Your task to perform on an android device: change the upload size in google photos Image 0: 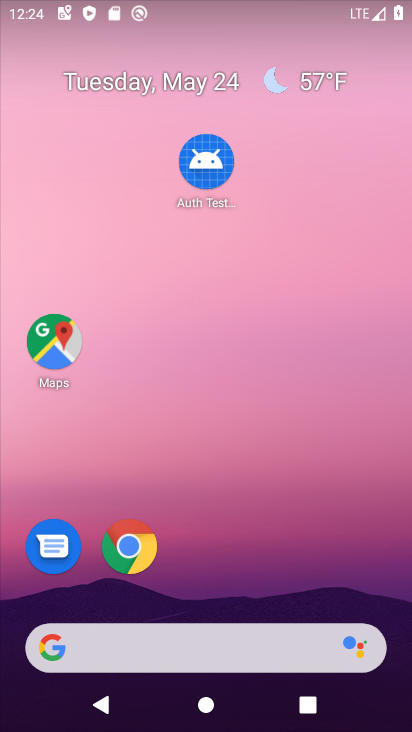
Step 0: drag from (216, 602) to (238, 128)
Your task to perform on an android device: change the upload size in google photos Image 1: 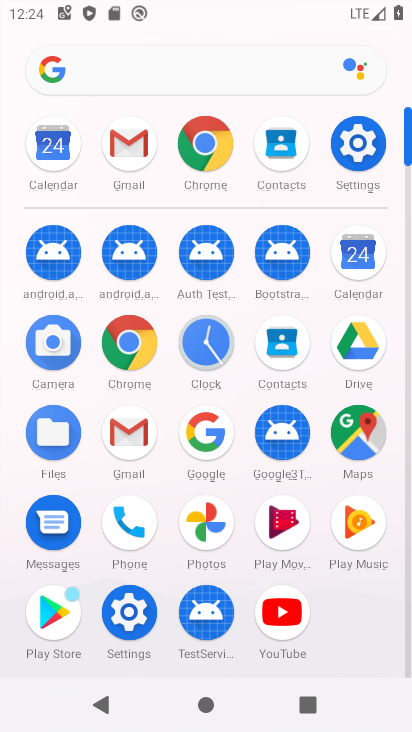
Step 1: click (218, 518)
Your task to perform on an android device: change the upload size in google photos Image 2: 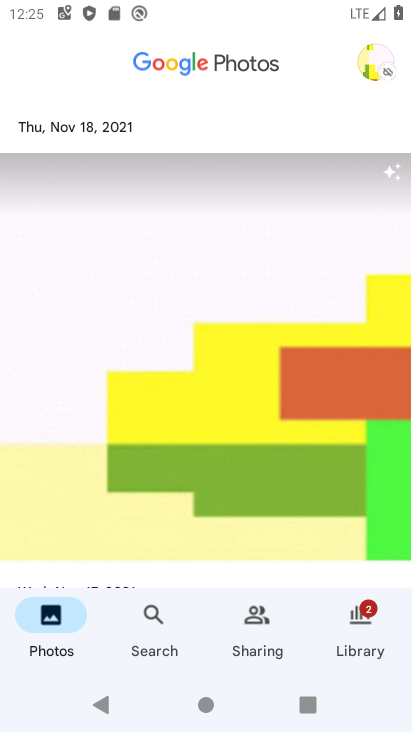
Step 2: drag from (188, 464) to (329, 115)
Your task to perform on an android device: change the upload size in google photos Image 3: 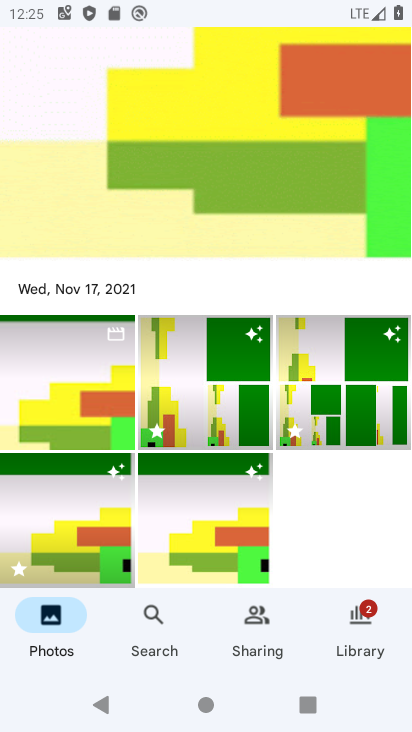
Step 3: drag from (284, 106) to (313, 575)
Your task to perform on an android device: change the upload size in google photos Image 4: 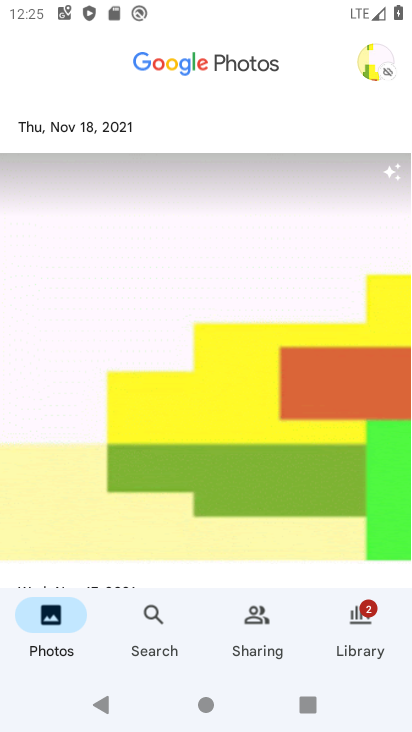
Step 4: click (372, 605)
Your task to perform on an android device: change the upload size in google photos Image 5: 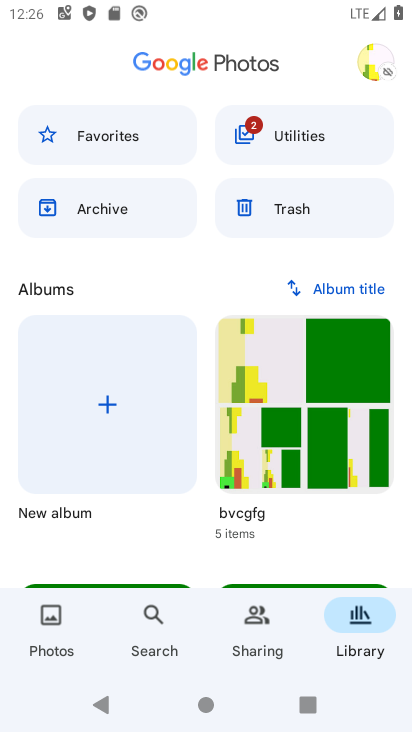
Step 5: click (377, 55)
Your task to perform on an android device: change the upload size in google photos Image 6: 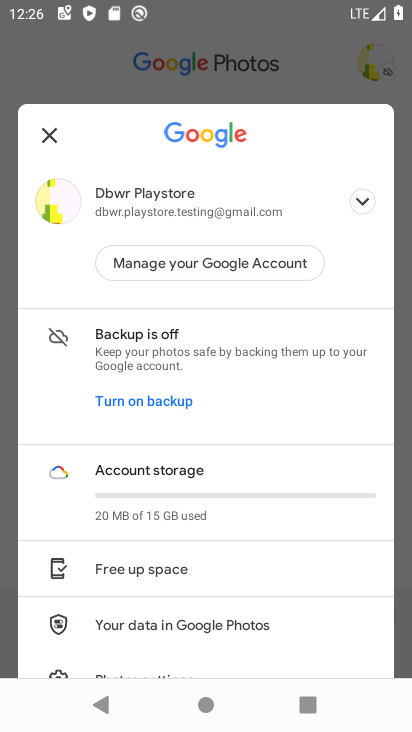
Step 6: drag from (139, 555) to (228, 220)
Your task to perform on an android device: change the upload size in google photos Image 7: 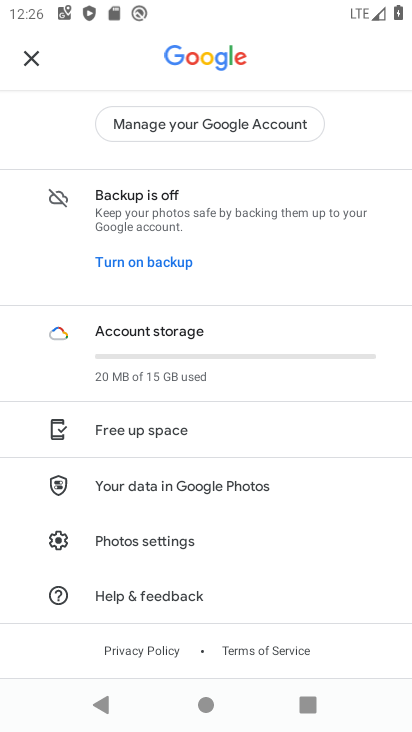
Step 7: click (126, 530)
Your task to perform on an android device: change the upload size in google photos Image 8: 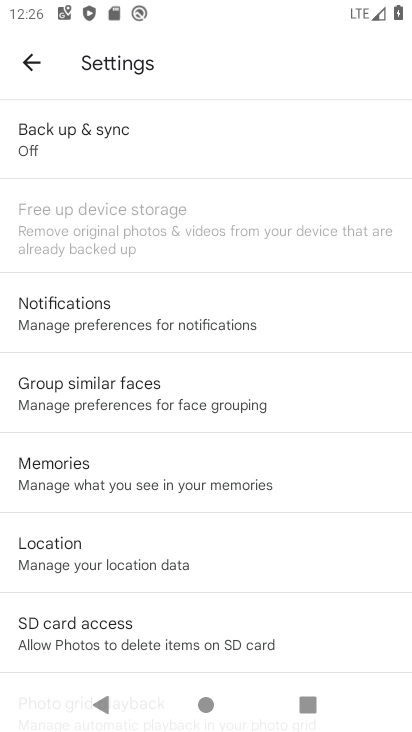
Step 8: click (144, 165)
Your task to perform on an android device: change the upload size in google photos Image 9: 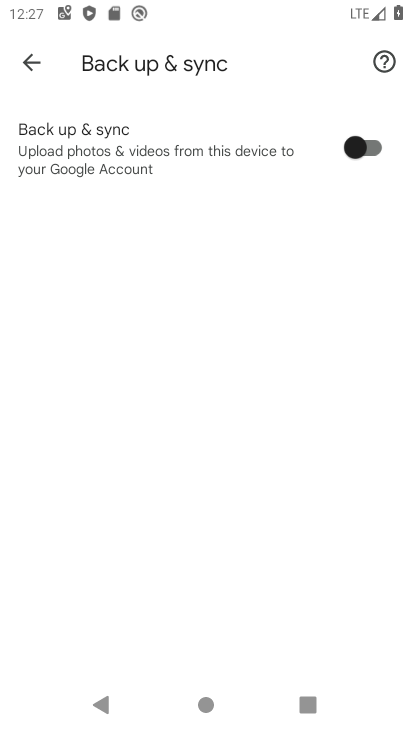
Step 9: click (356, 147)
Your task to perform on an android device: change the upload size in google photos Image 10: 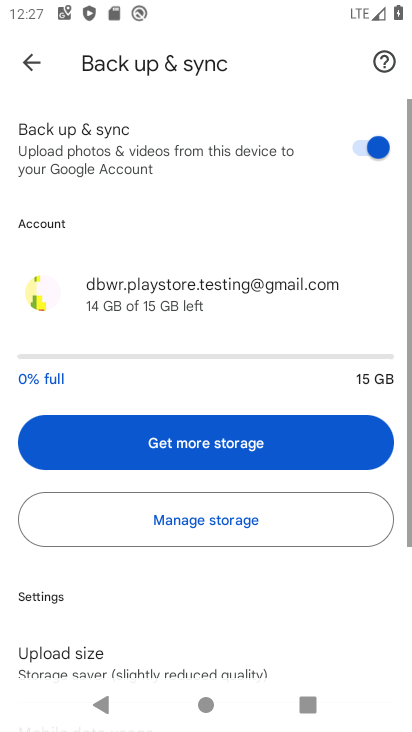
Step 10: drag from (224, 595) to (328, 68)
Your task to perform on an android device: change the upload size in google photos Image 11: 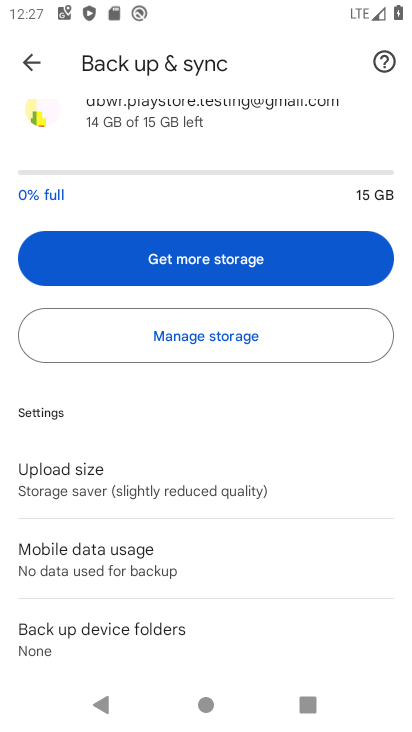
Step 11: click (125, 457)
Your task to perform on an android device: change the upload size in google photos Image 12: 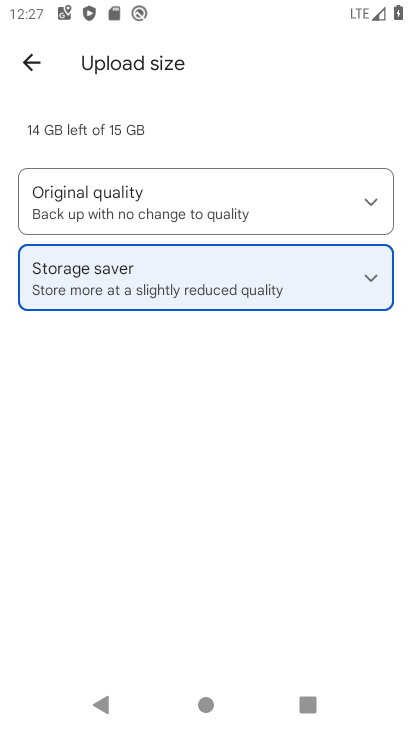
Step 12: click (264, 188)
Your task to perform on an android device: change the upload size in google photos Image 13: 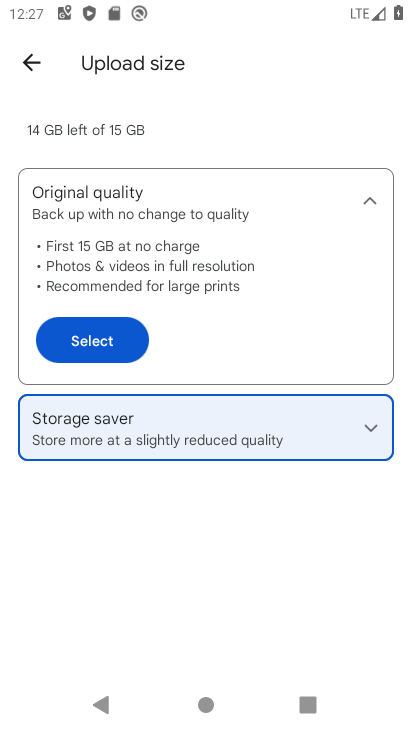
Step 13: task complete